Your task to perform on an android device: Check the weather Image 0: 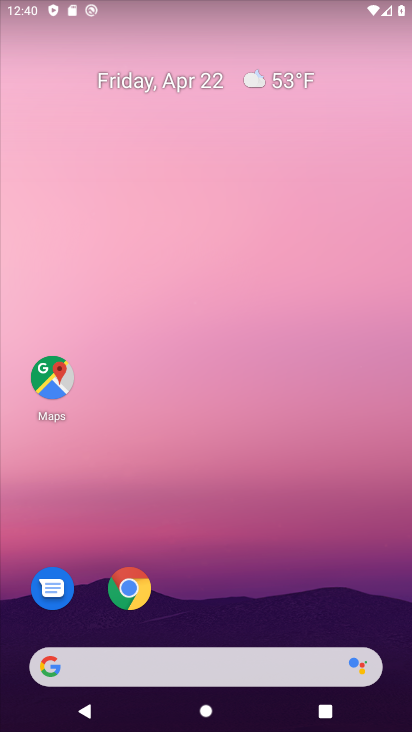
Step 0: click (265, 84)
Your task to perform on an android device: Check the weather Image 1: 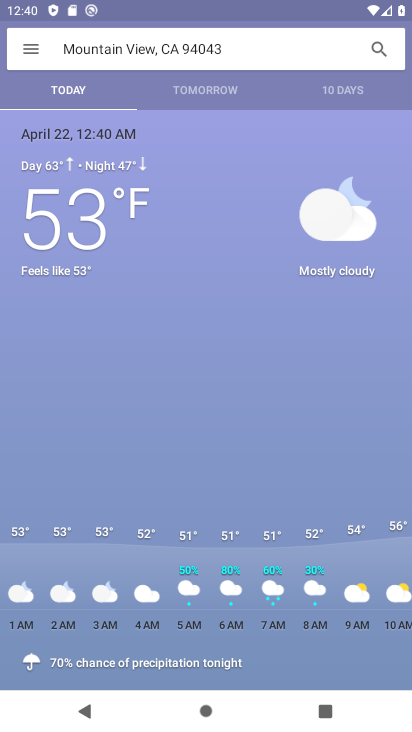
Step 1: task complete